Your task to perform on an android device: open app "Facebook" (install if not already installed) Image 0: 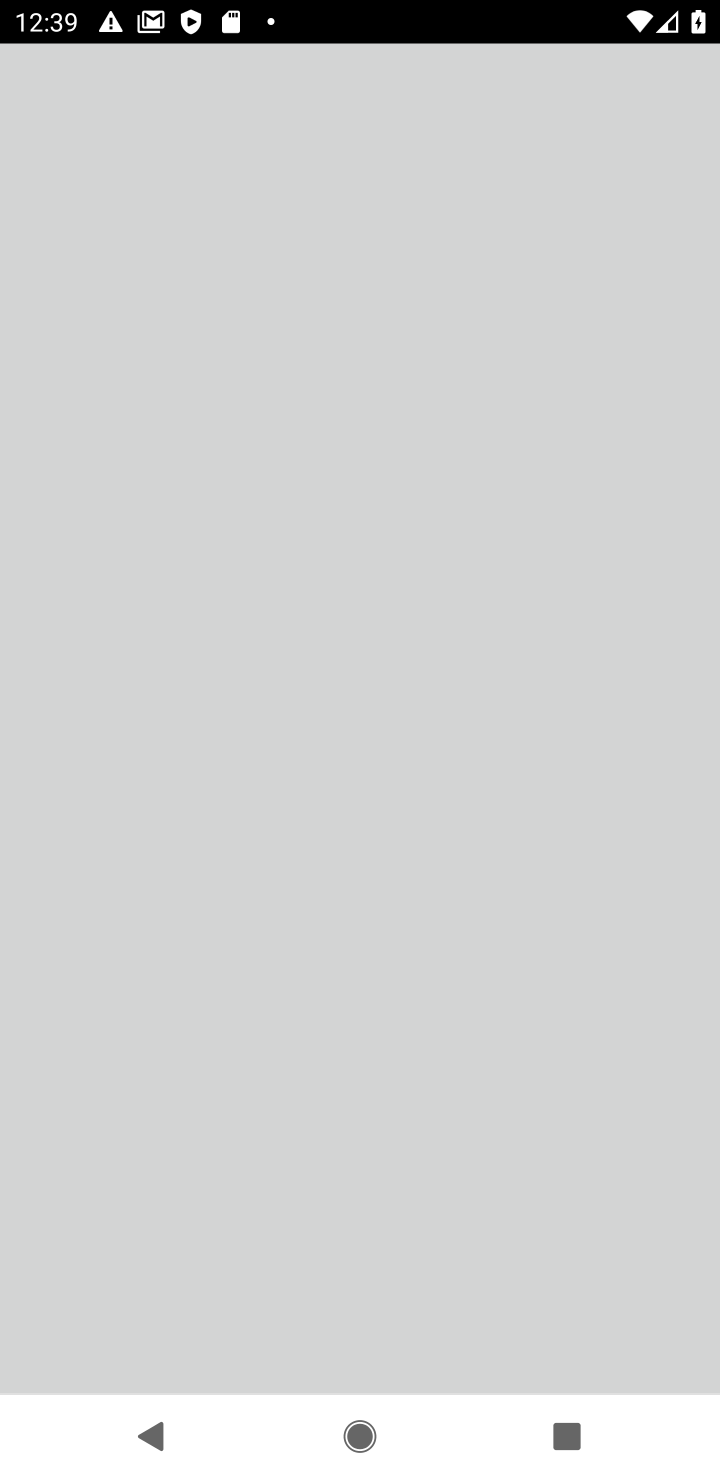
Step 0: press home button
Your task to perform on an android device: open app "Facebook" (install if not already installed) Image 1: 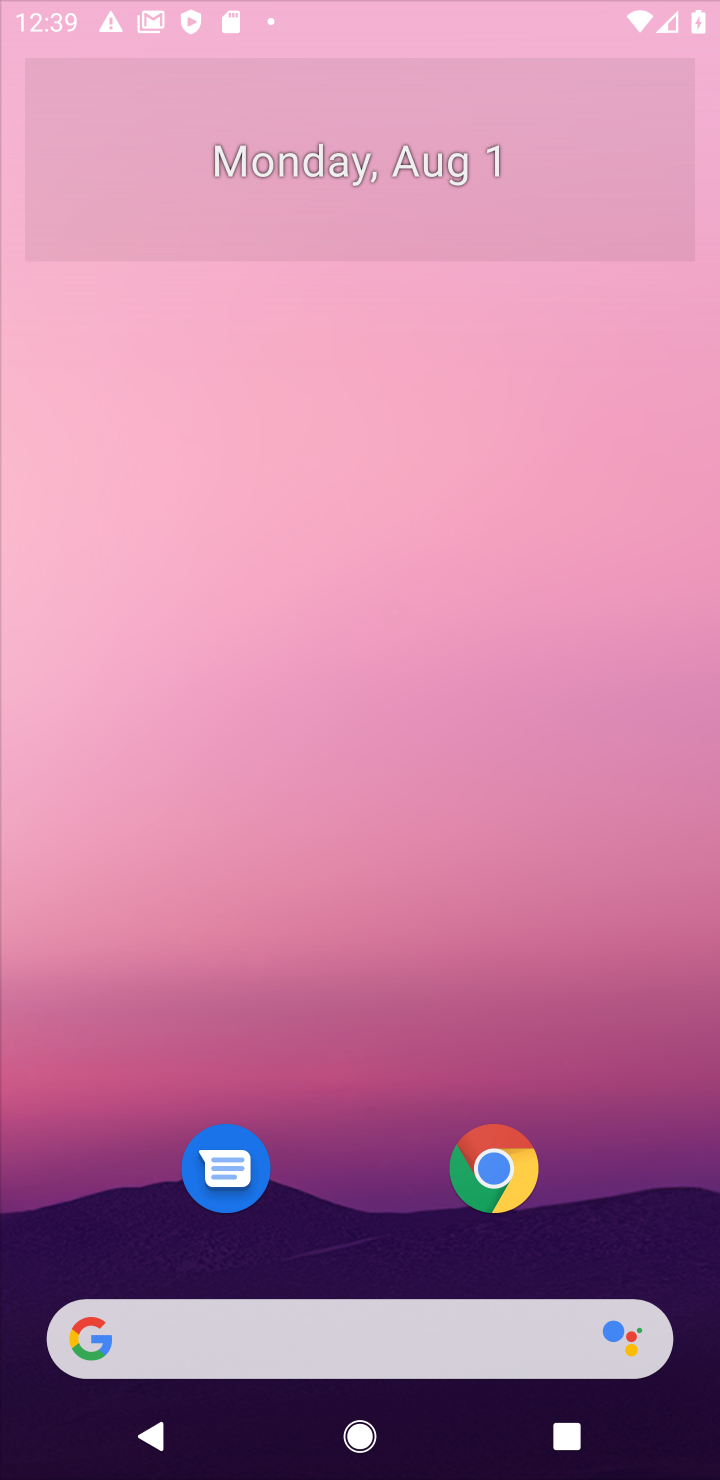
Step 1: drag from (394, 1268) to (409, 458)
Your task to perform on an android device: open app "Facebook" (install if not already installed) Image 2: 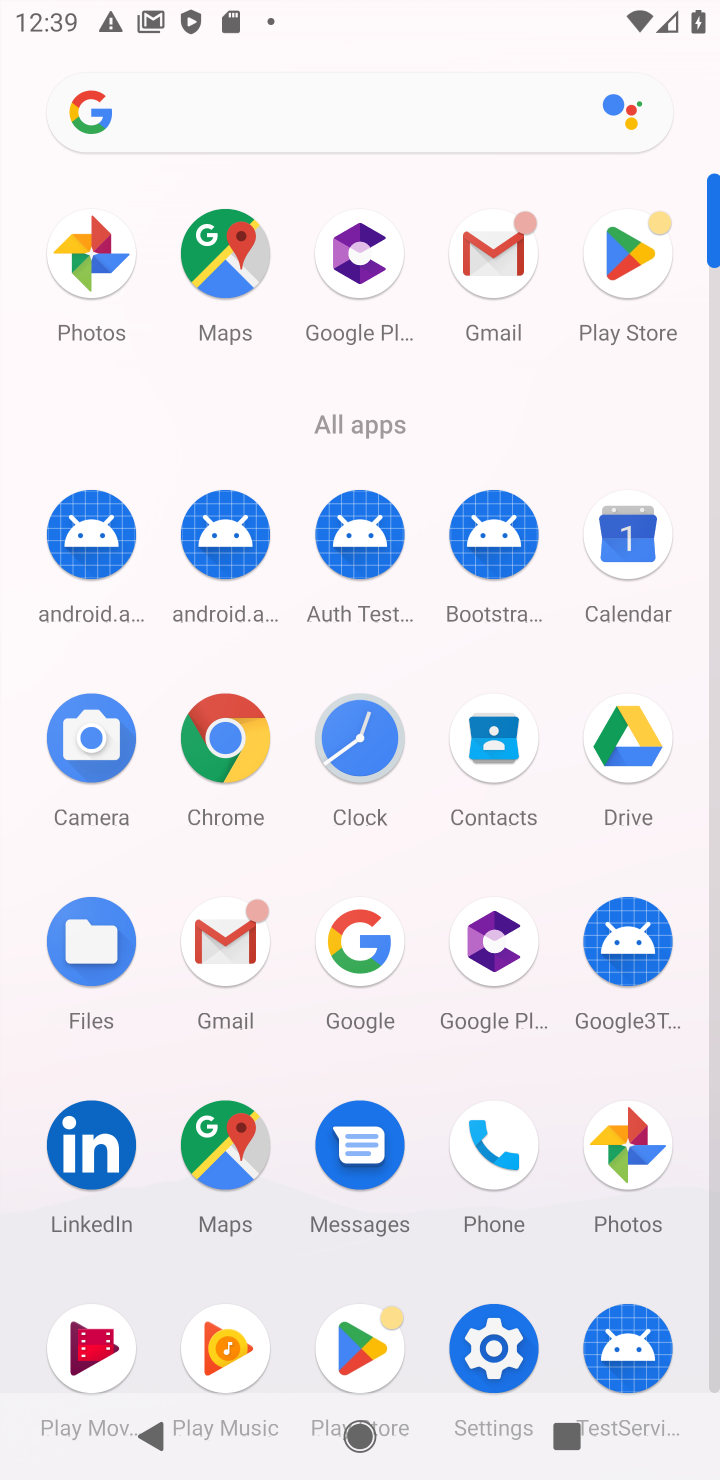
Step 2: click (639, 257)
Your task to perform on an android device: open app "Facebook" (install if not already installed) Image 3: 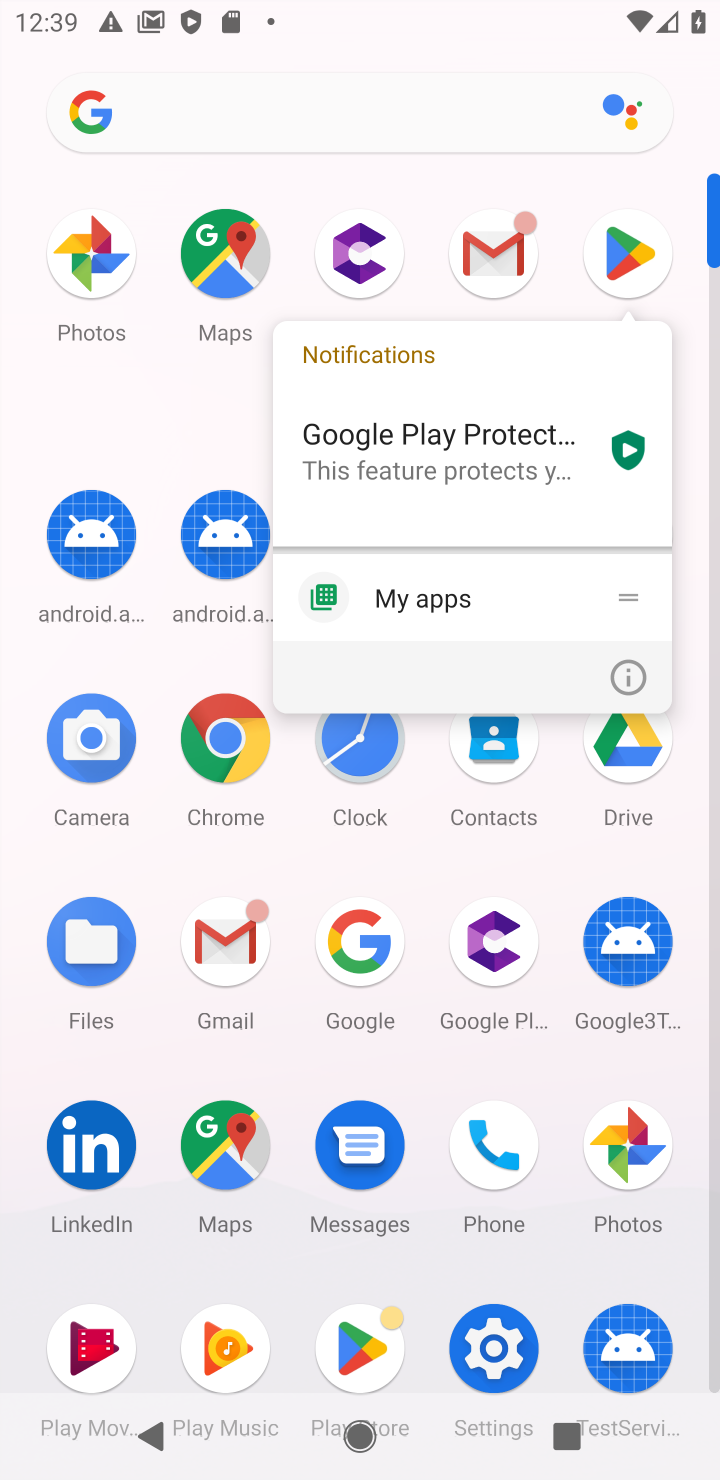
Step 3: click (601, 230)
Your task to perform on an android device: open app "Facebook" (install if not already installed) Image 4: 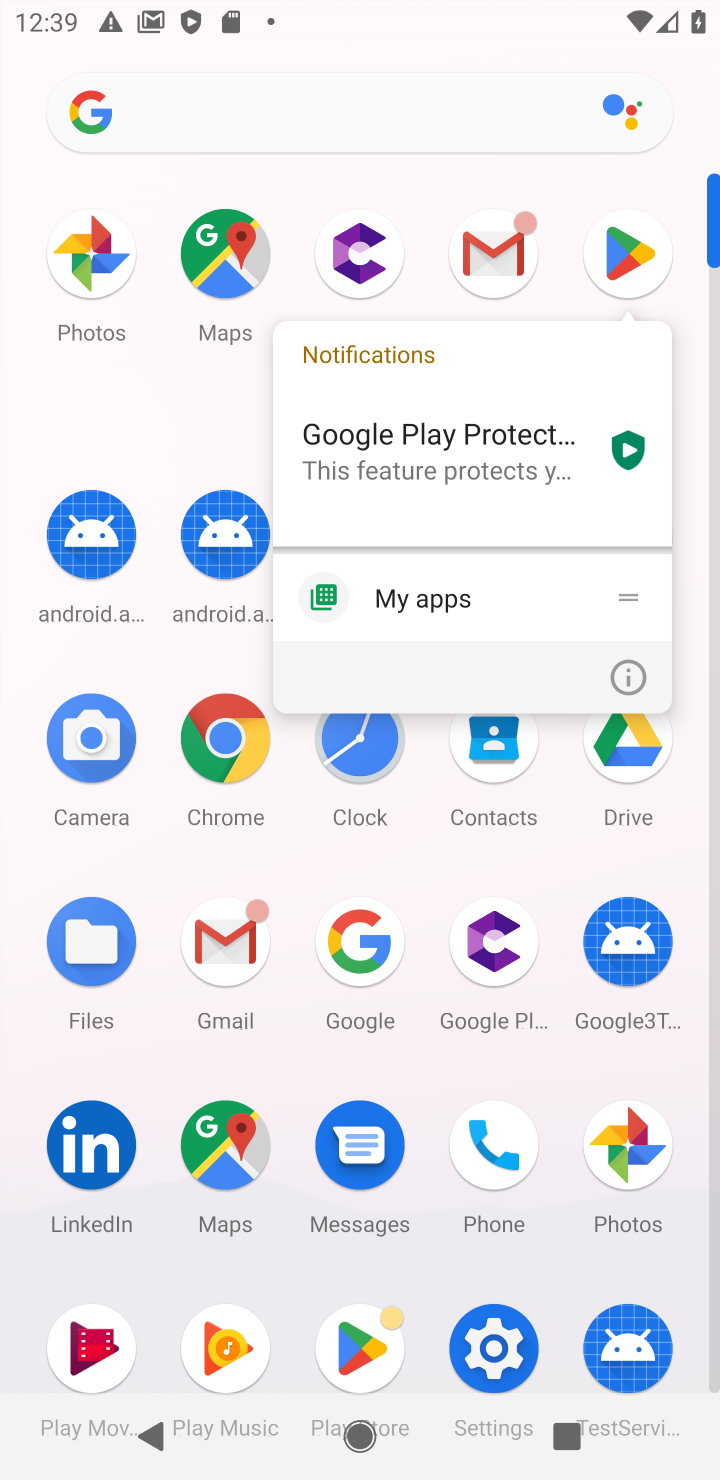
Step 4: click (629, 242)
Your task to perform on an android device: open app "Facebook" (install if not already installed) Image 5: 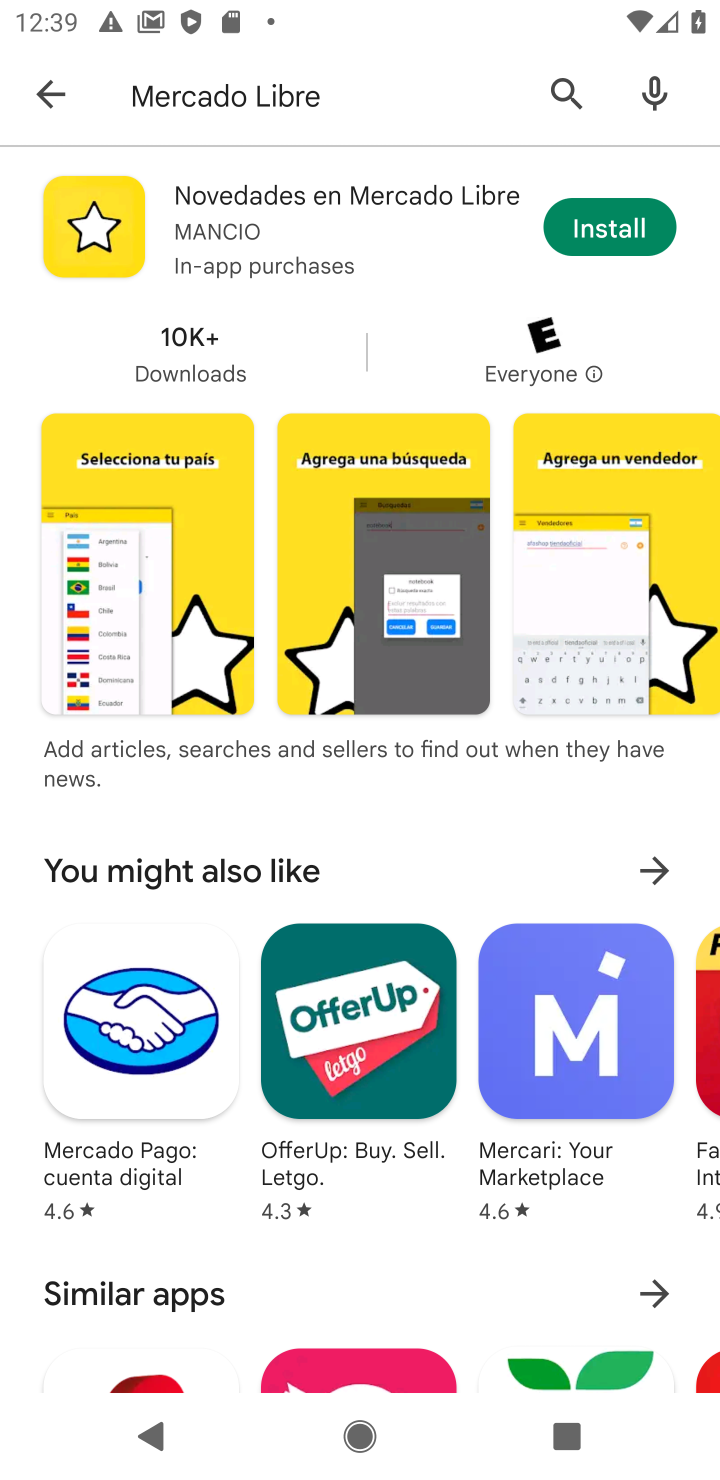
Step 5: click (343, 87)
Your task to perform on an android device: open app "Facebook" (install if not already installed) Image 6: 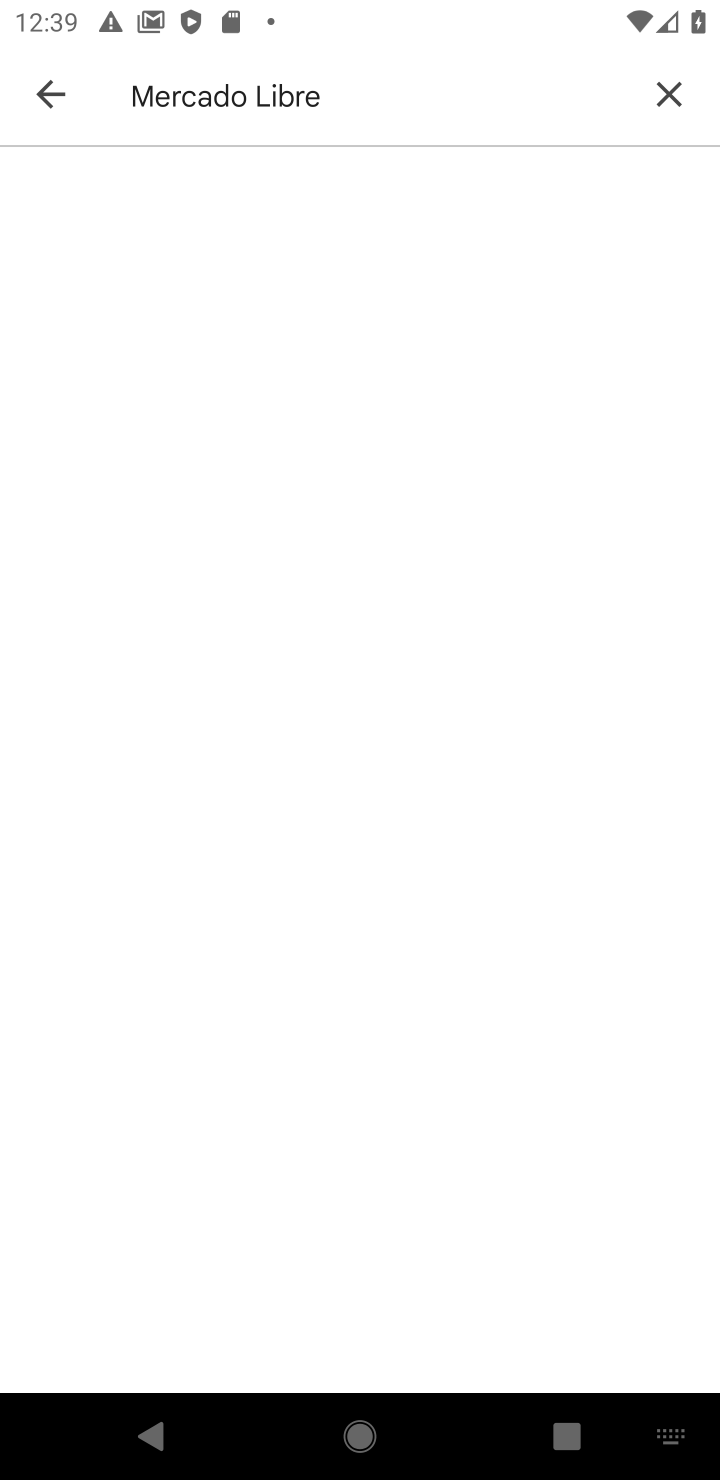
Step 6: click (657, 82)
Your task to perform on an android device: open app "Facebook" (install if not already installed) Image 7: 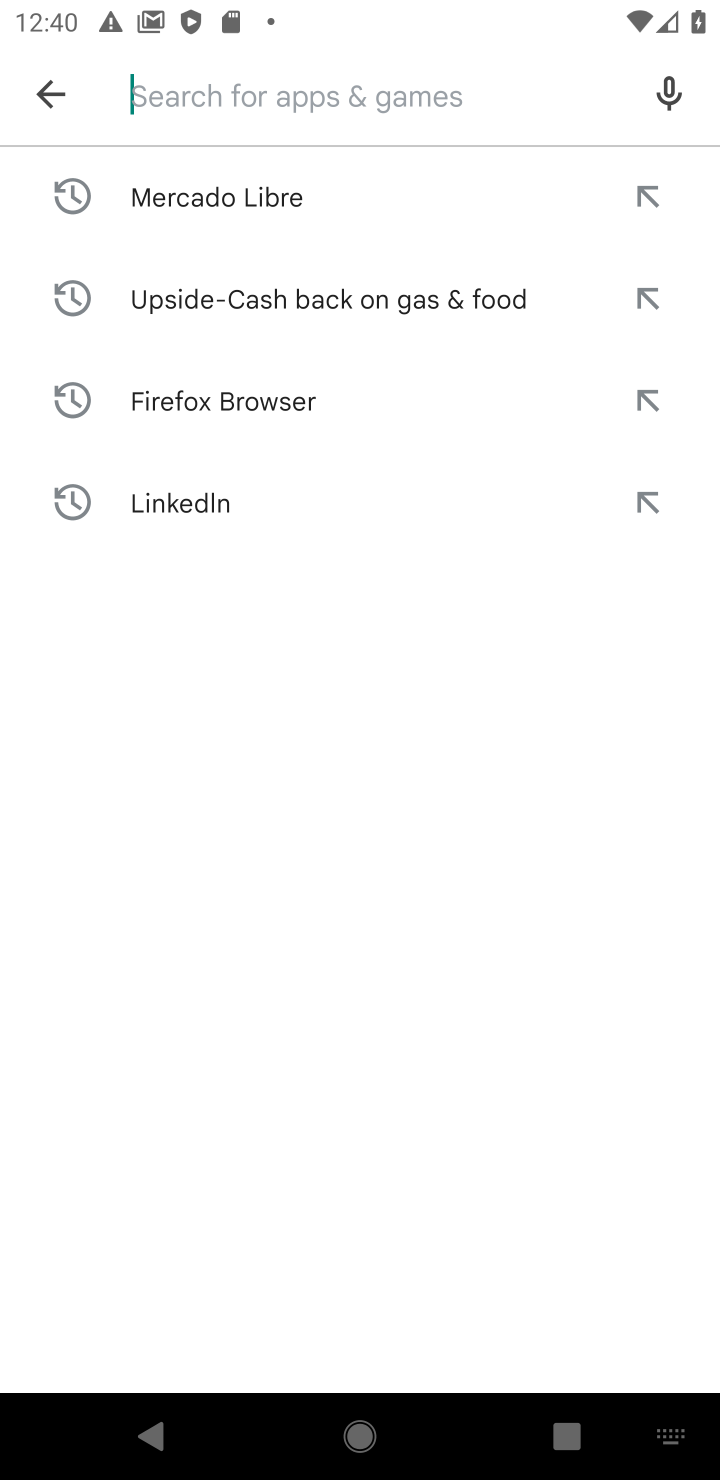
Step 7: type "Facebook"
Your task to perform on an android device: open app "Facebook" (install if not already installed) Image 8: 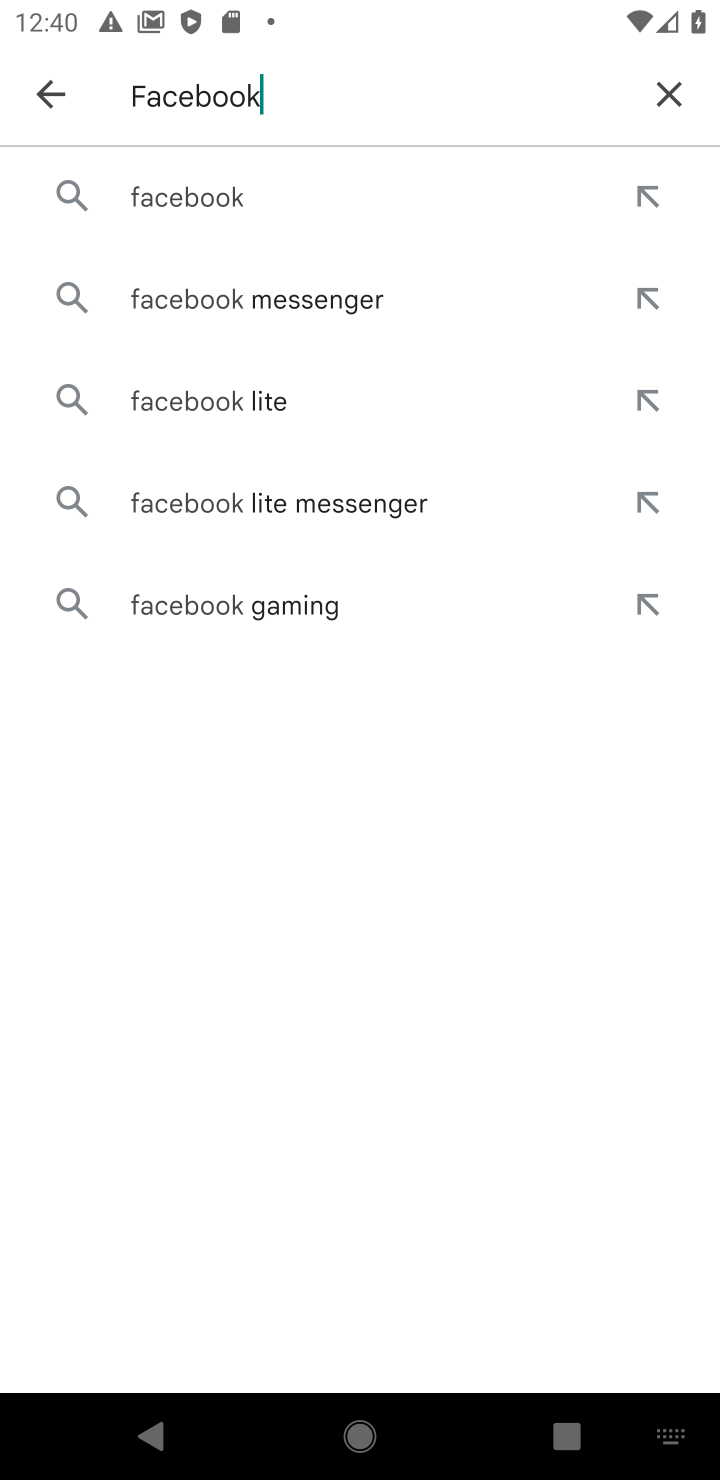
Step 8: press enter
Your task to perform on an android device: open app "Facebook" (install if not already installed) Image 9: 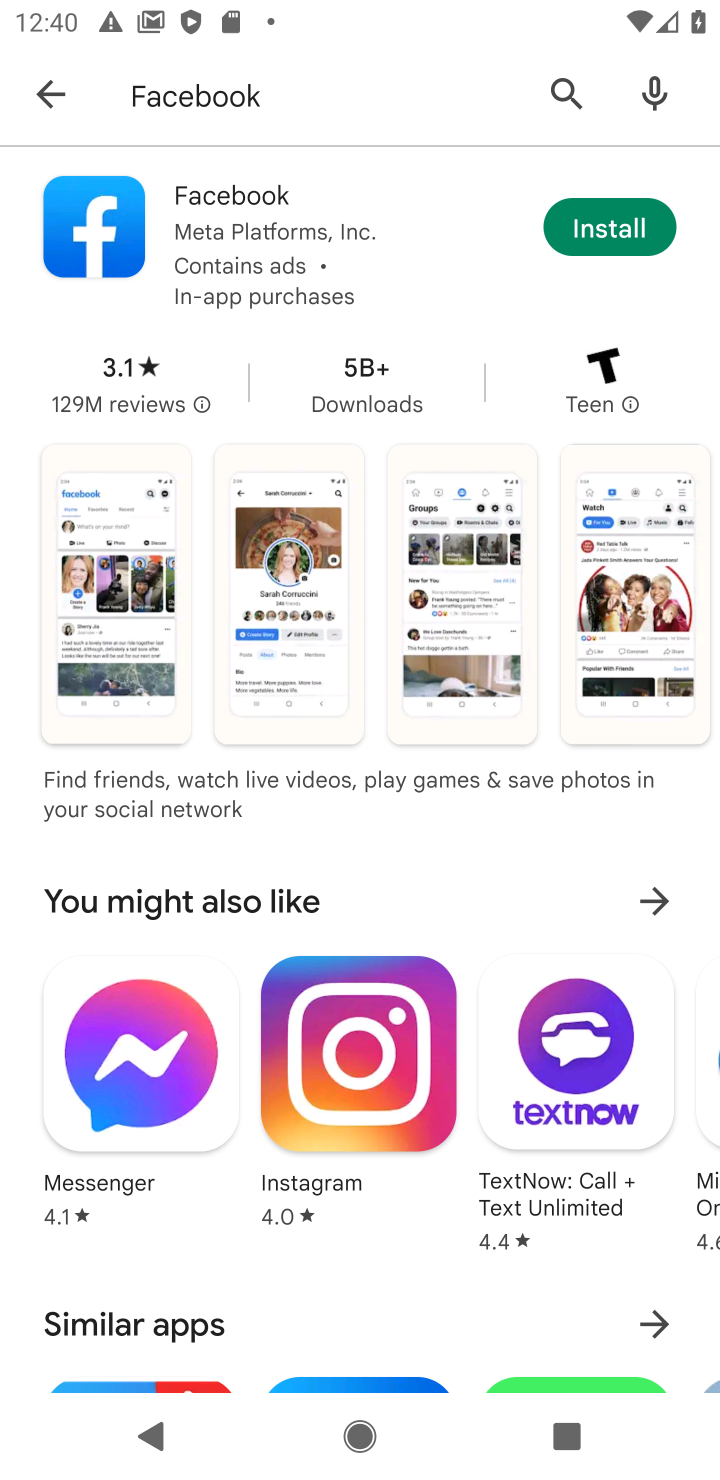
Step 9: click (635, 237)
Your task to perform on an android device: open app "Facebook" (install if not already installed) Image 10: 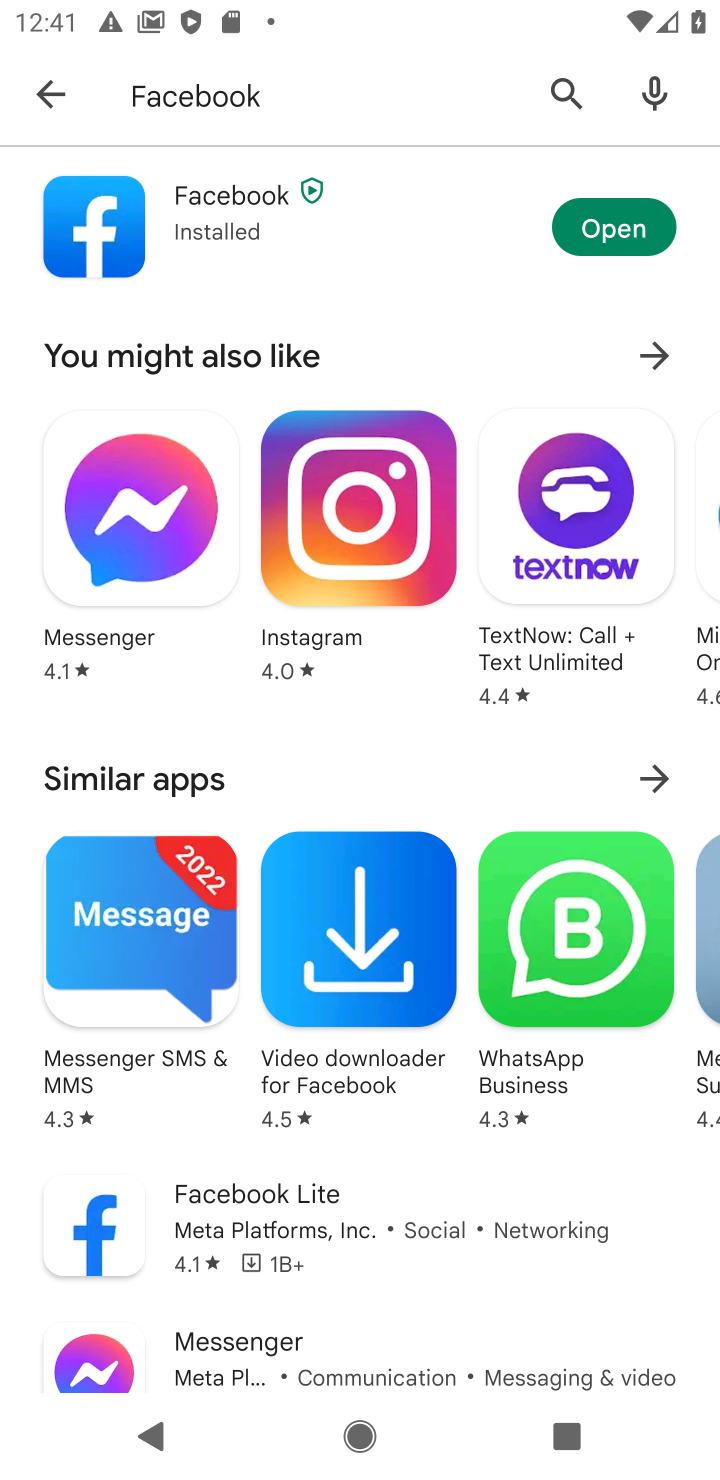
Step 10: click (630, 209)
Your task to perform on an android device: open app "Facebook" (install if not already installed) Image 11: 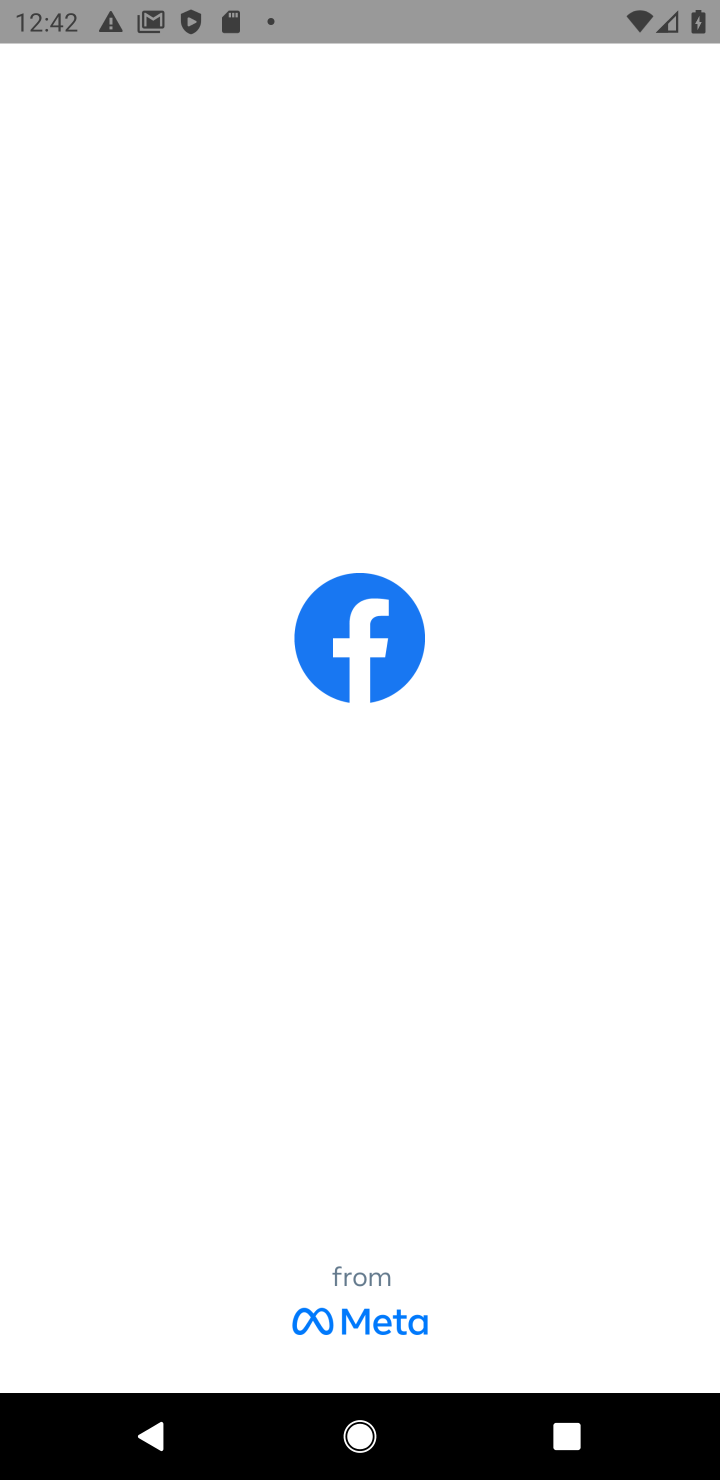
Step 11: task complete